Your task to perform on an android device: move an email to a new category in the gmail app Image 0: 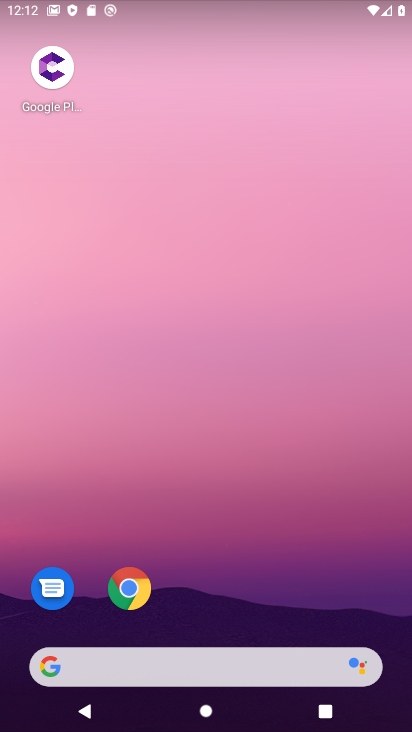
Step 0: drag from (197, 528) to (238, 25)
Your task to perform on an android device: move an email to a new category in the gmail app Image 1: 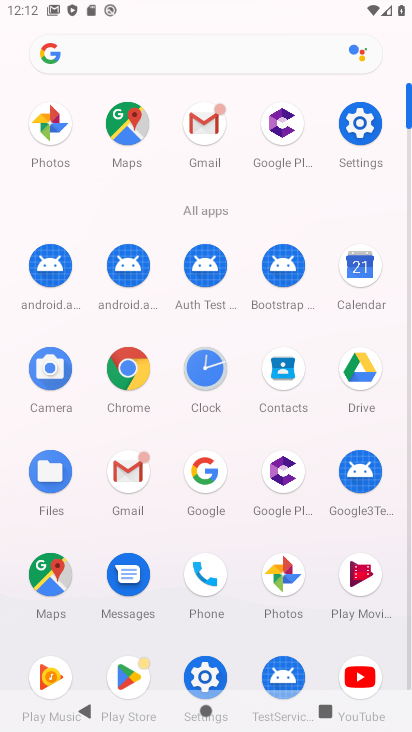
Step 1: click (204, 130)
Your task to perform on an android device: move an email to a new category in the gmail app Image 2: 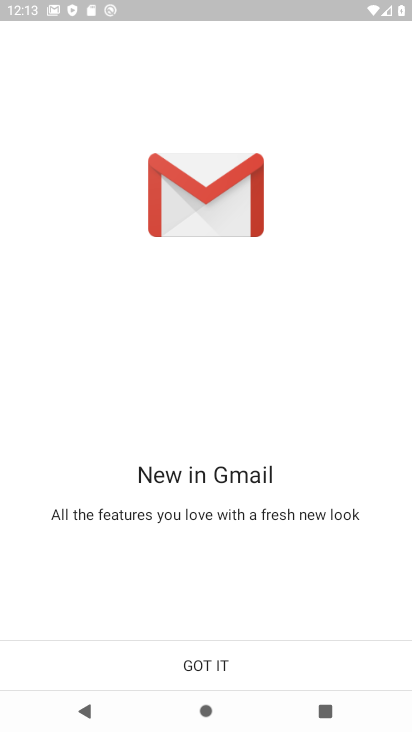
Step 2: click (202, 660)
Your task to perform on an android device: move an email to a new category in the gmail app Image 3: 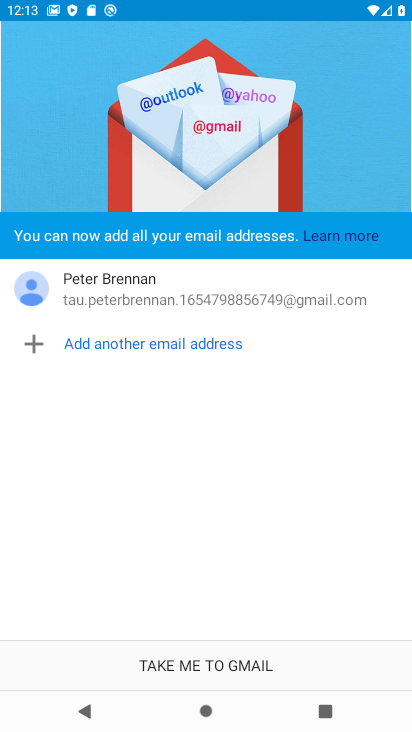
Step 3: click (130, 666)
Your task to perform on an android device: move an email to a new category in the gmail app Image 4: 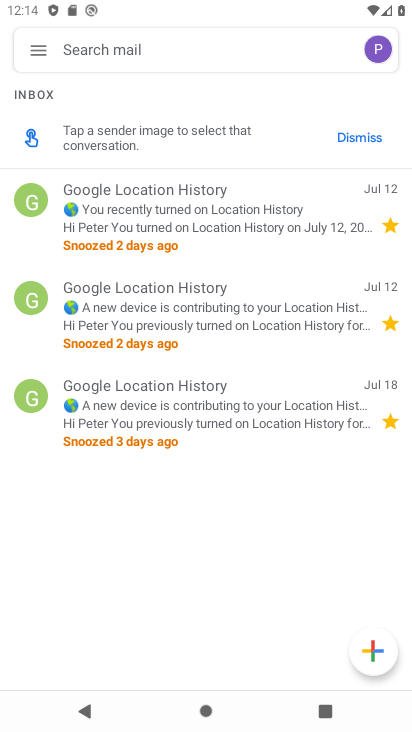
Step 4: click (195, 400)
Your task to perform on an android device: move an email to a new category in the gmail app Image 5: 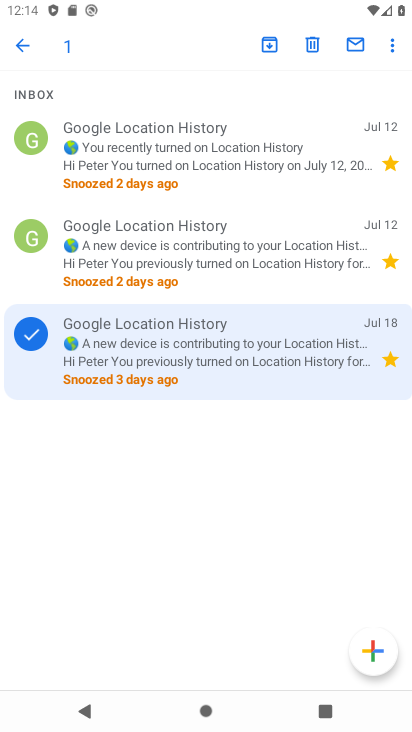
Step 5: click (396, 46)
Your task to perform on an android device: move an email to a new category in the gmail app Image 6: 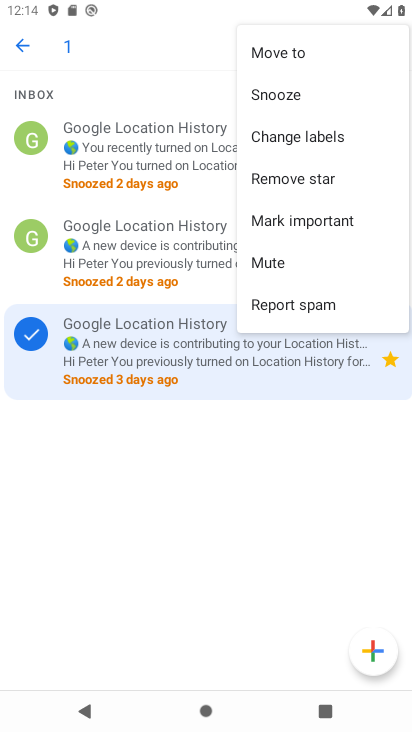
Step 6: click (304, 55)
Your task to perform on an android device: move an email to a new category in the gmail app Image 7: 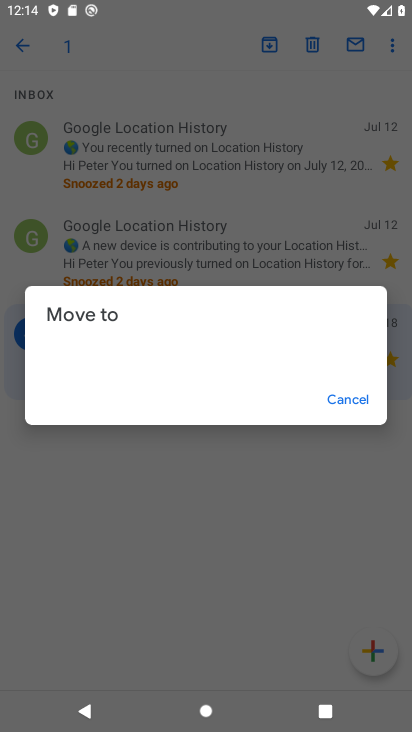
Step 7: click (229, 380)
Your task to perform on an android device: move an email to a new category in the gmail app Image 8: 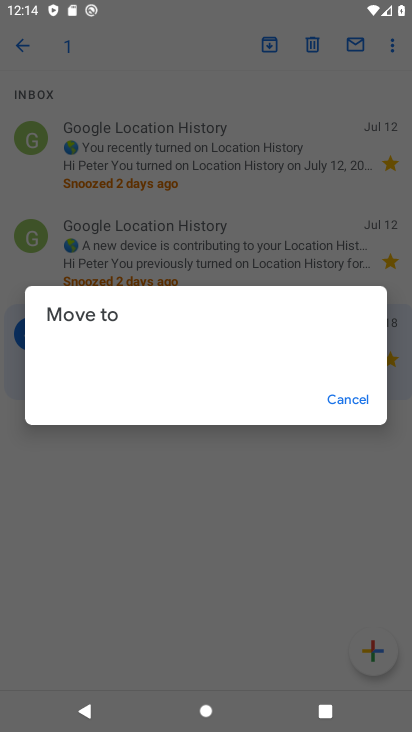
Step 8: click (318, 477)
Your task to perform on an android device: move an email to a new category in the gmail app Image 9: 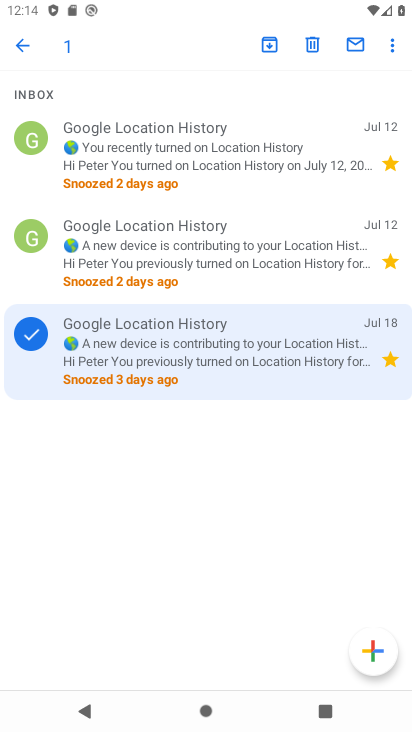
Step 9: click (22, 50)
Your task to perform on an android device: move an email to a new category in the gmail app Image 10: 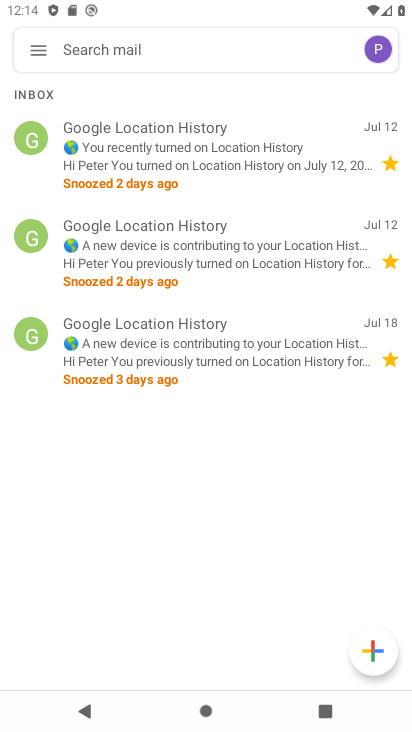
Step 10: click (22, 50)
Your task to perform on an android device: move an email to a new category in the gmail app Image 11: 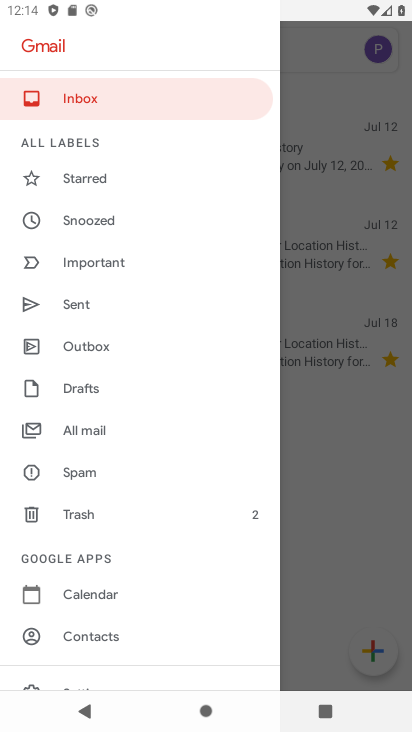
Step 11: click (105, 417)
Your task to perform on an android device: move an email to a new category in the gmail app Image 12: 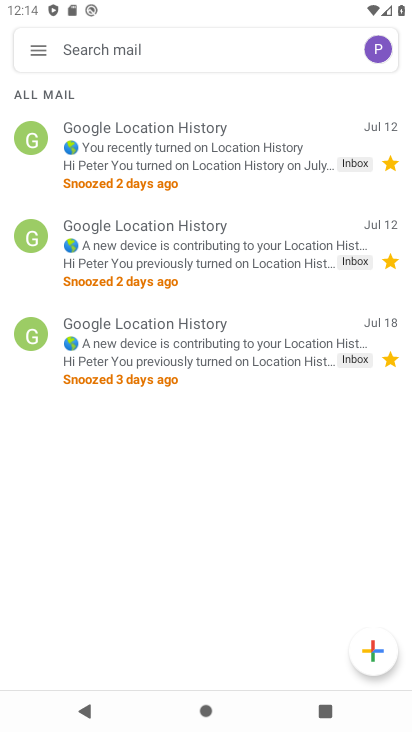
Step 12: click (253, 170)
Your task to perform on an android device: move an email to a new category in the gmail app Image 13: 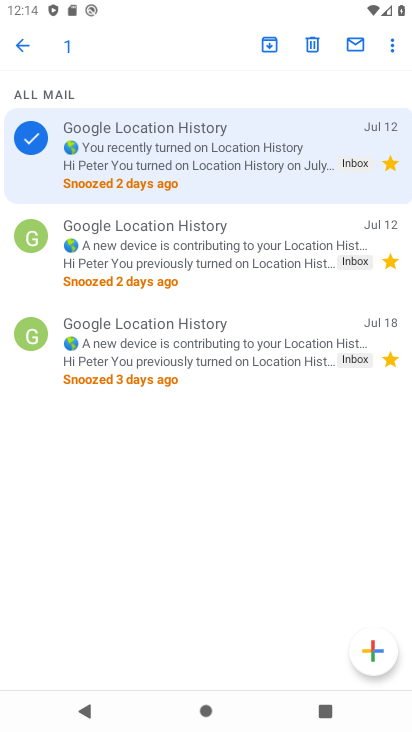
Step 13: click (398, 37)
Your task to perform on an android device: move an email to a new category in the gmail app Image 14: 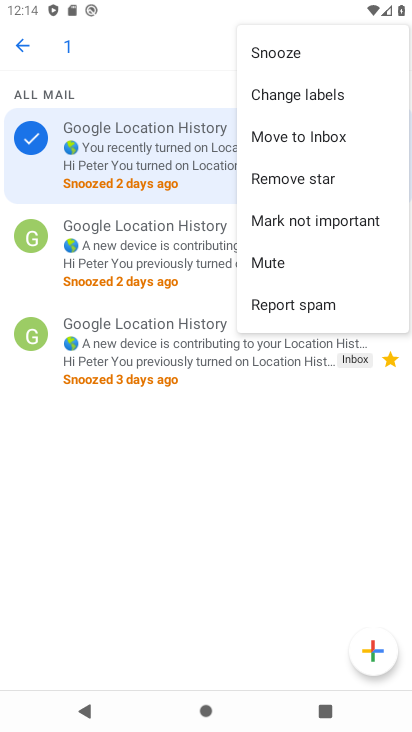
Step 14: click (315, 134)
Your task to perform on an android device: move an email to a new category in the gmail app Image 15: 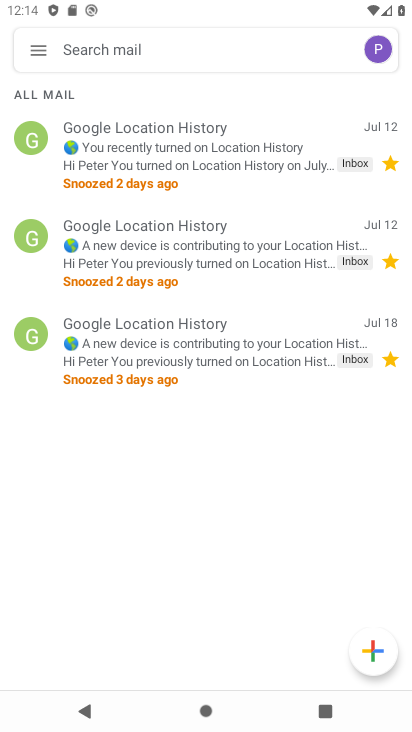
Step 15: task complete